Your task to perform on an android device: Open display settings Image 0: 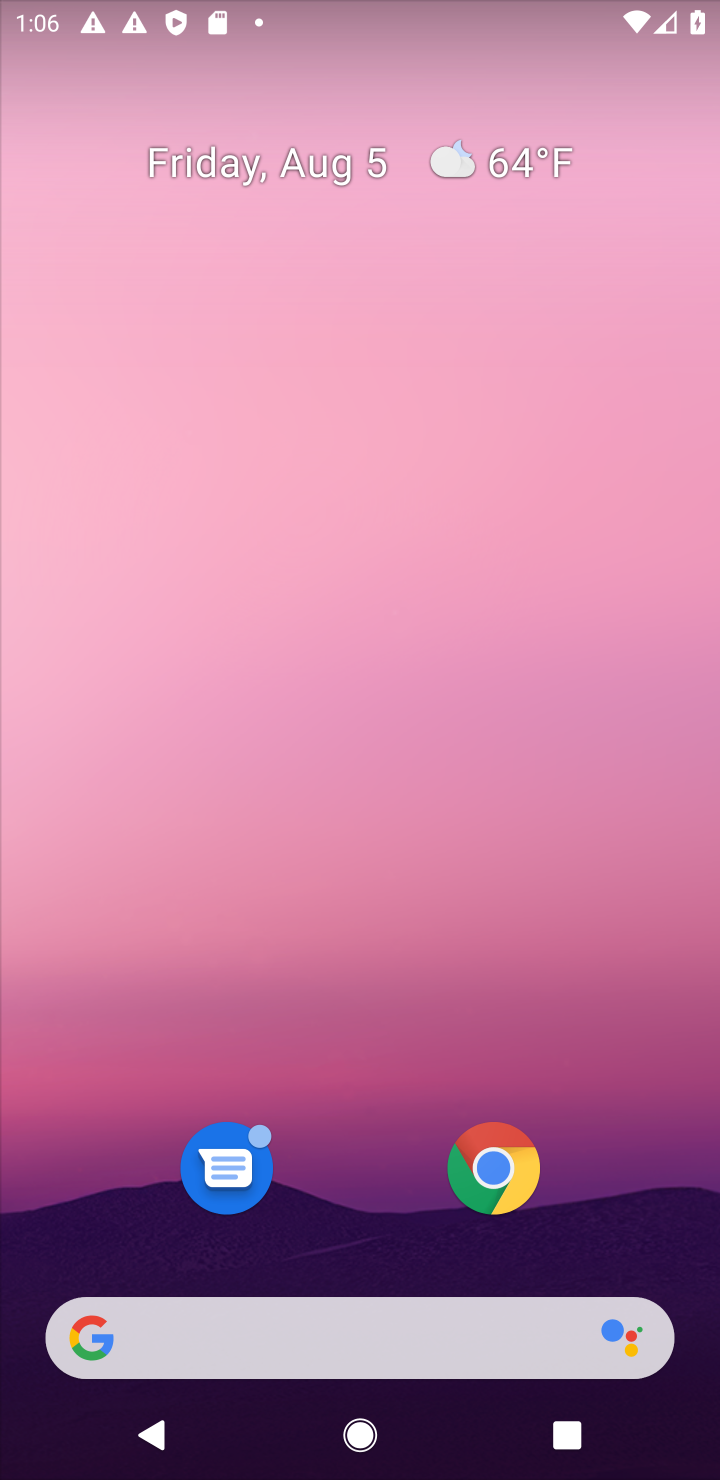
Step 0: drag from (337, 822) to (439, 29)
Your task to perform on an android device: Open display settings Image 1: 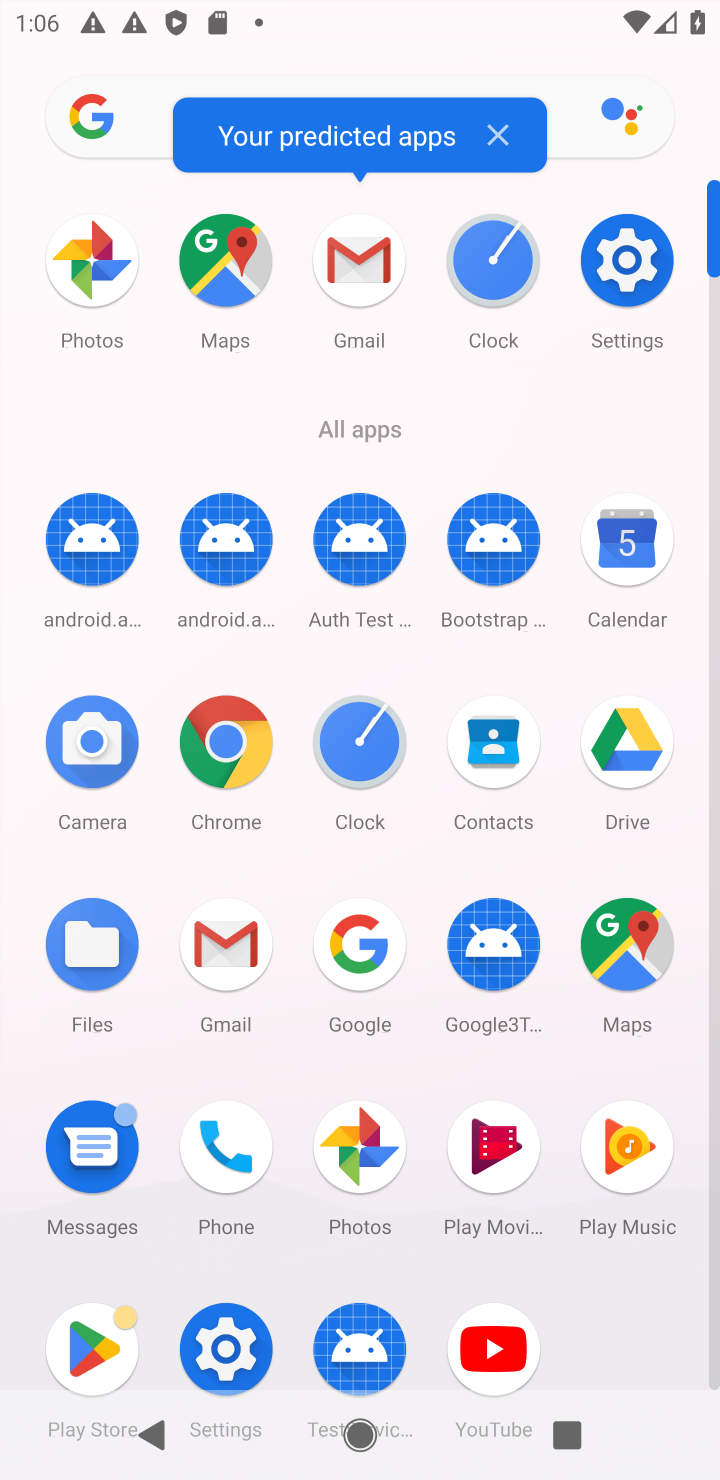
Step 1: click (606, 275)
Your task to perform on an android device: Open display settings Image 2: 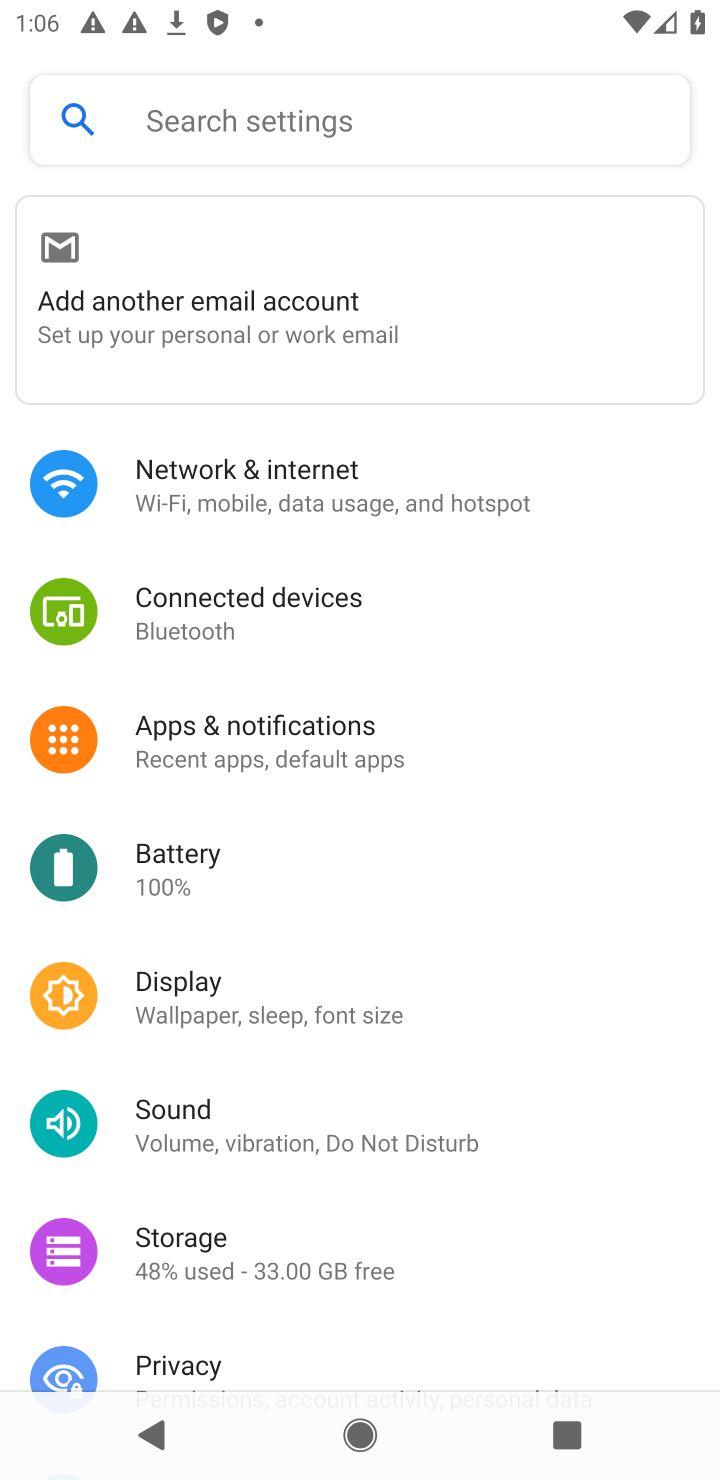
Step 2: click (183, 994)
Your task to perform on an android device: Open display settings Image 3: 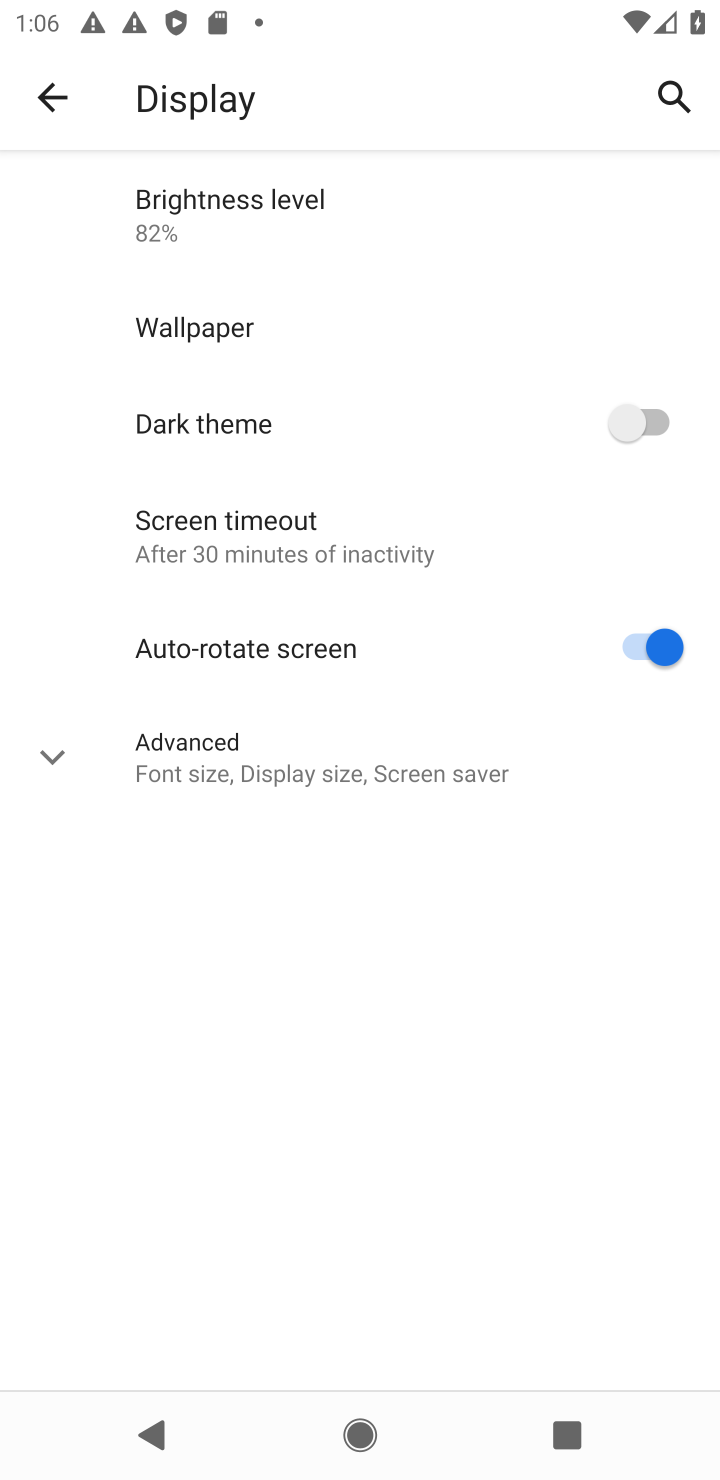
Step 3: task complete